Your task to perform on an android device: Go to CNN.com Image 0: 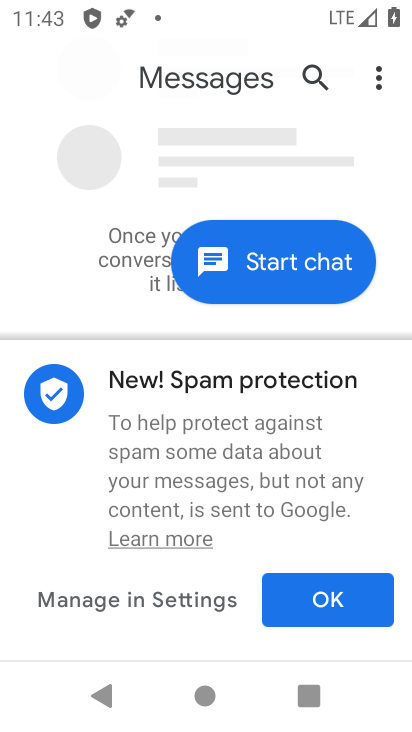
Step 0: press home button
Your task to perform on an android device: Go to CNN.com Image 1: 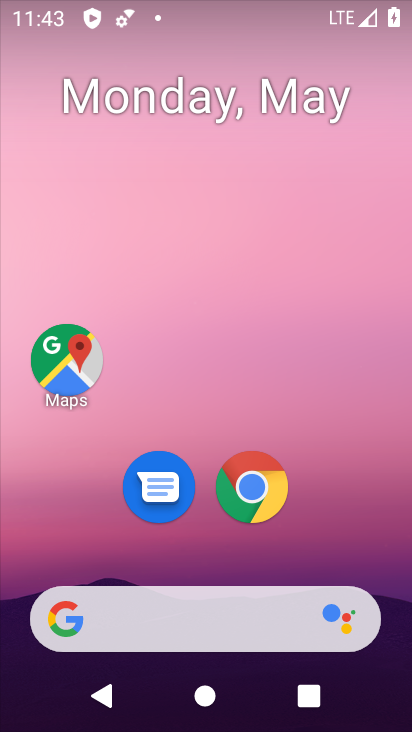
Step 1: click (256, 482)
Your task to perform on an android device: Go to CNN.com Image 2: 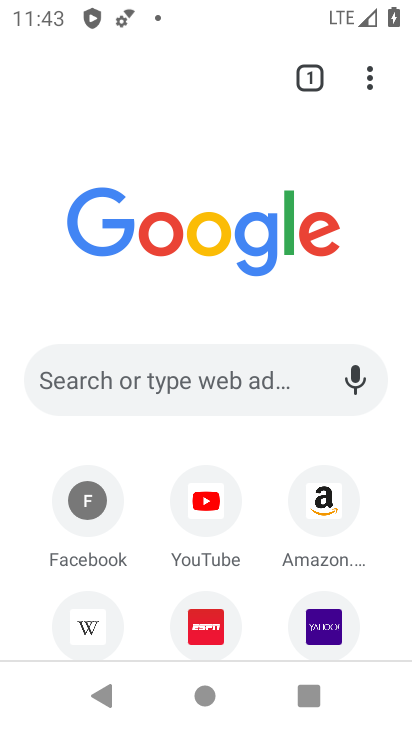
Step 2: click (234, 384)
Your task to perform on an android device: Go to CNN.com Image 3: 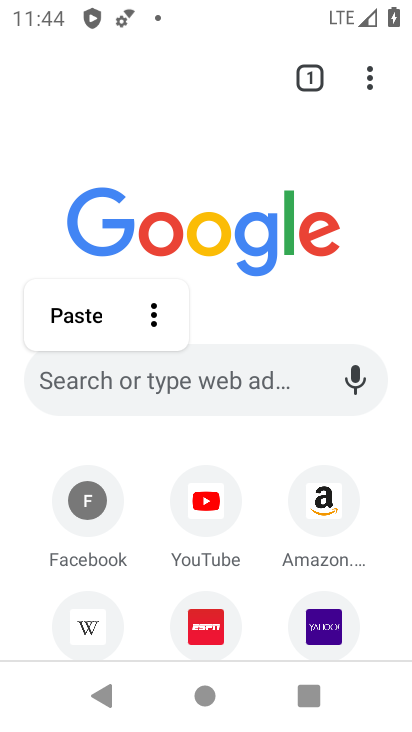
Step 3: click (209, 384)
Your task to perform on an android device: Go to CNN.com Image 4: 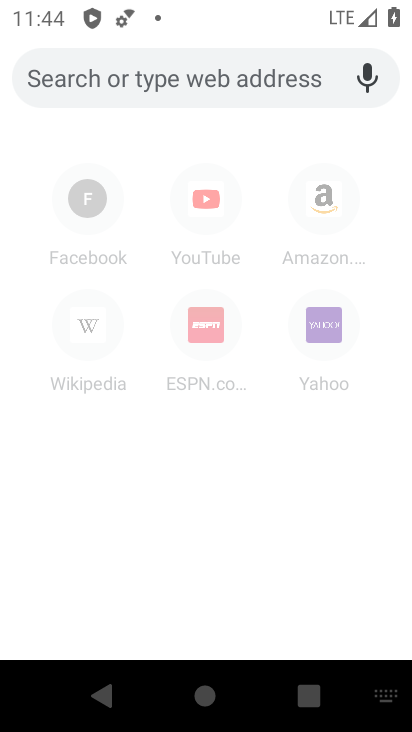
Step 4: type "CNN.com"
Your task to perform on an android device: Go to CNN.com Image 5: 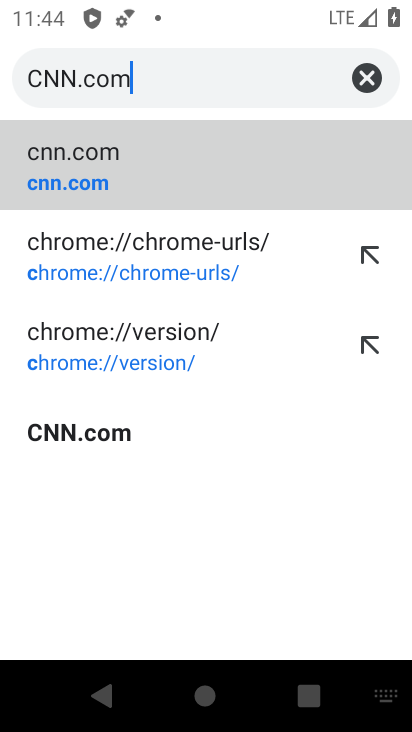
Step 5: type ""
Your task to perform on an android device: Go to CNN.com Image 6: 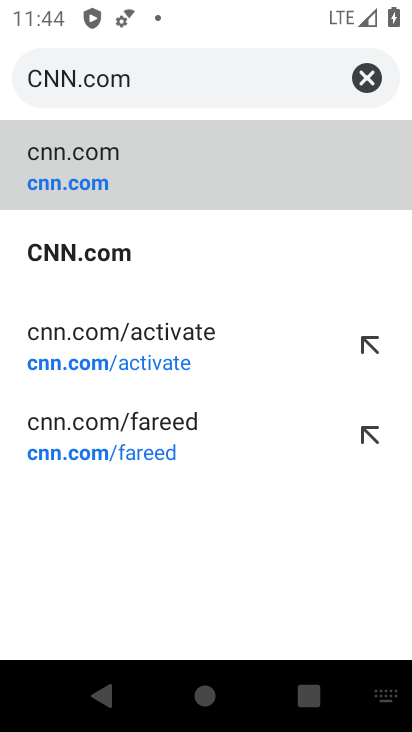
Step 6: click (85, 253)
Your task to perform on an android device: Go to CNN.com Image 7: 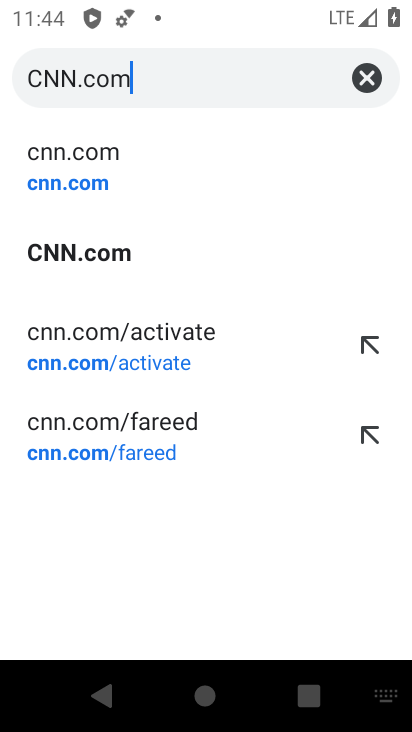
Step 7: click (90, 246)
Your task to perform on an android device: Go to CNN.com Image 8: 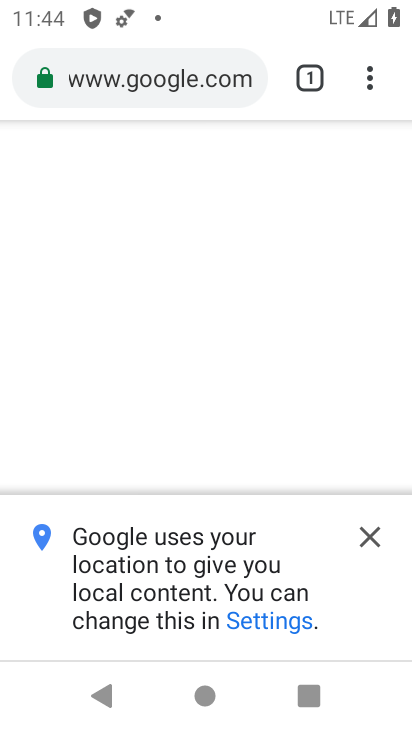
Step 8: click (370, 533)
Your task to perform on an android device: Go to CNN.com Image 9: 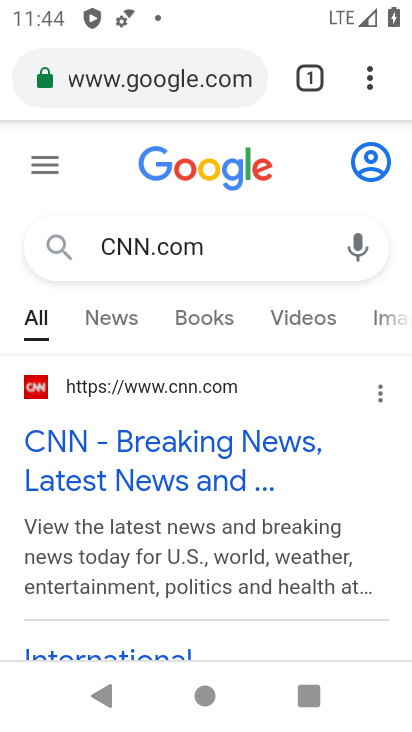
Step 9: drag from (368, 479) to (411, 519)
Your task to perform on an android device: Go to CNN.com Image 10: 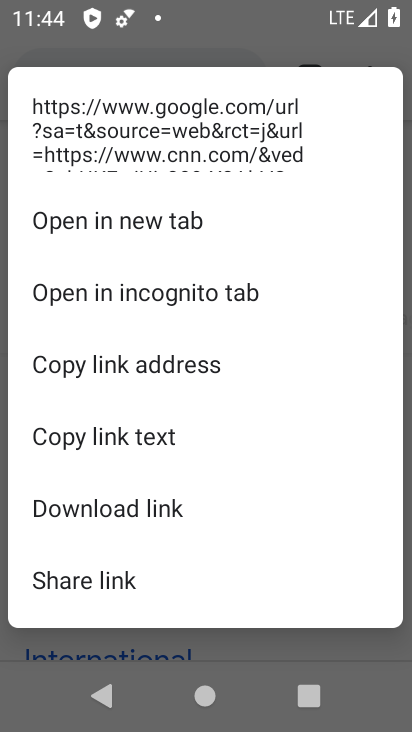
Step 10: press back button
Your task to perform on an android device: Go to CNN.com Image 11: 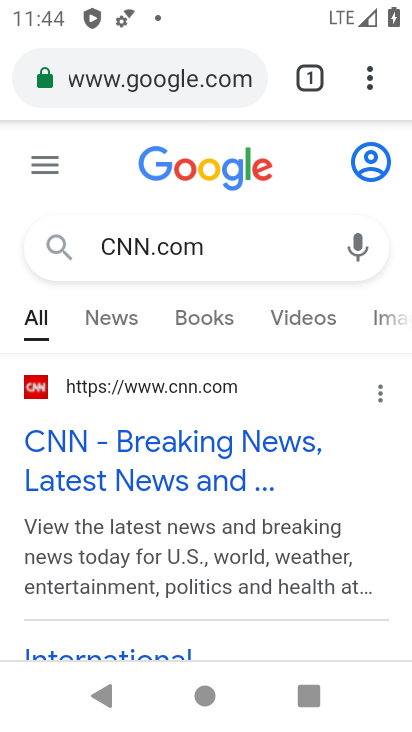
Step 11: click (230, 458)
Your task to perform on an android device: Go to CNN.com Image 12: 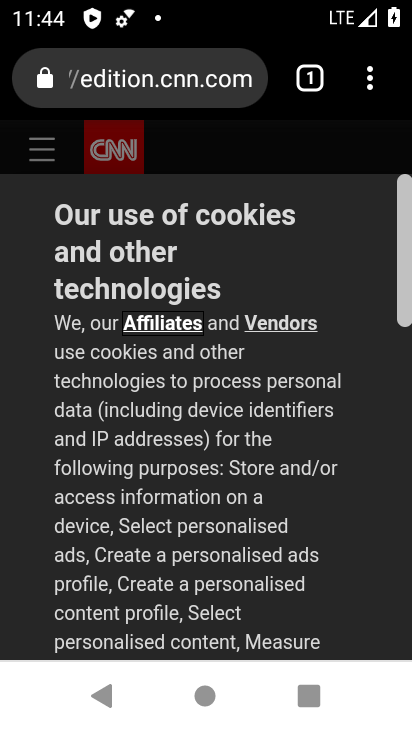
Step 12: task complete